Your task to perform on an android device: open the mobile data screen to see how much data has been used Image 0: 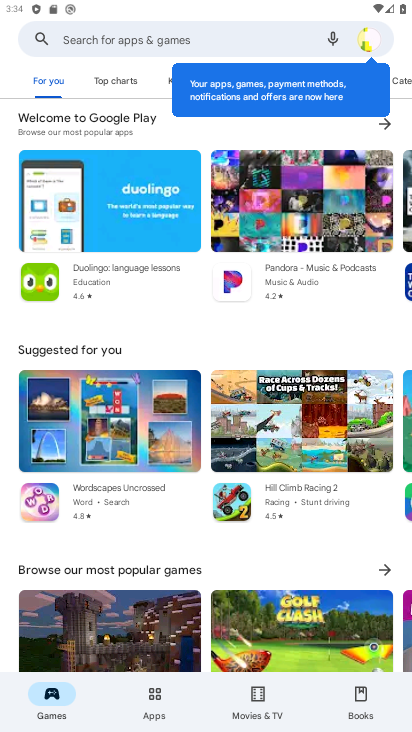
Step 0: press back button
Your task to perform on an android device: open the mobile data screen to see how much data has been used Image 1: 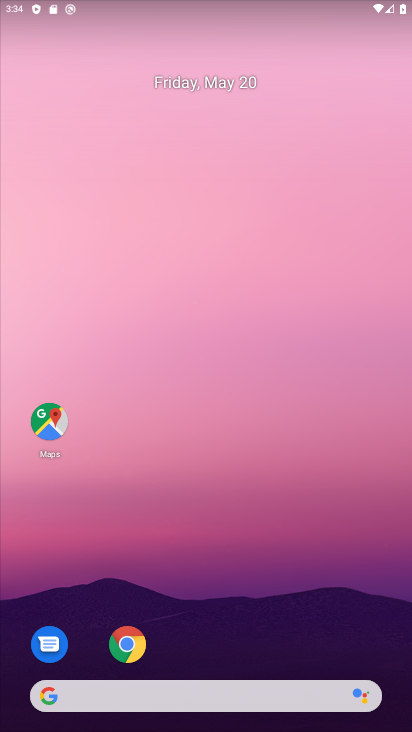
Step 1: drag from (253, 604) to (338, 63)
Your task to perform on an android device: open the mobile data screen to see how much data has been used Image 2: 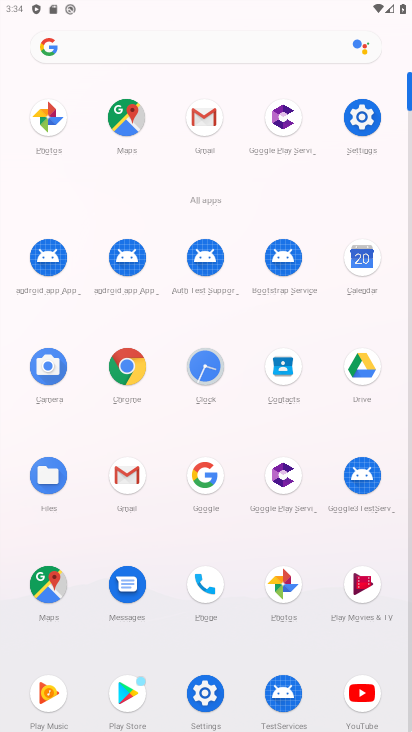
Step 2: click (360, 109)
Your task to perform on an android device: open the mobile data screen to see how much data has been used Image 3: 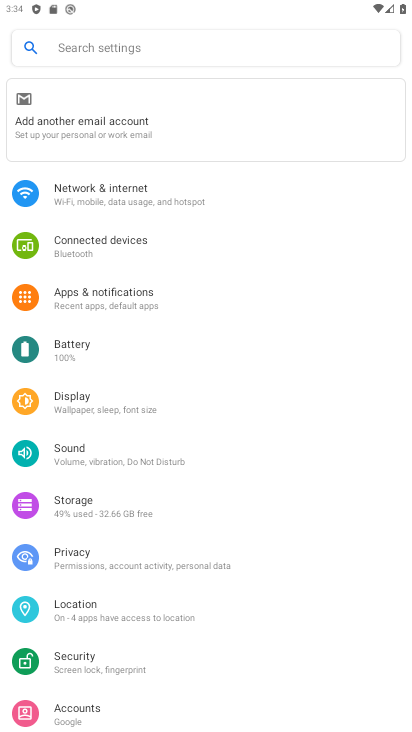
Step 3: click (222, 196)
Your task to perform on an android device: open the mobile data screen to see how much data has been used Image 4: 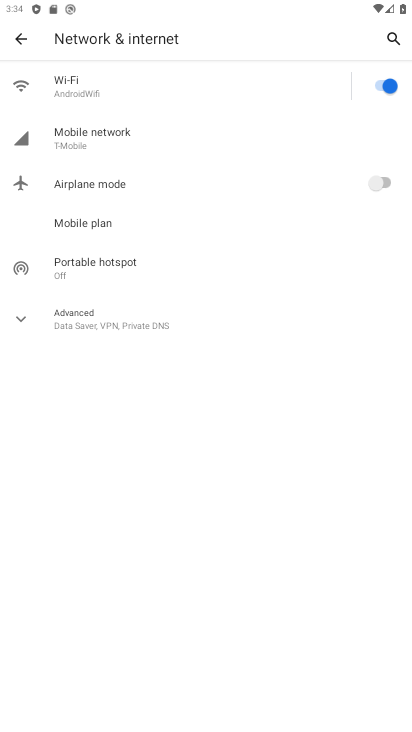
Step 4: click (121, 141)
Your task to perform on an android device: open the mobile data screen to see how much data has been used Image 5: 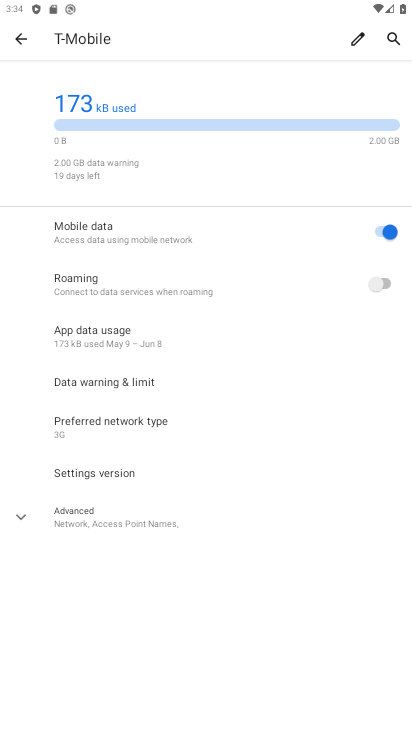
Step 5: click (114, 329)
Your task to perform on an android device: open the mobile data screen to see how much data has been used Image 6: 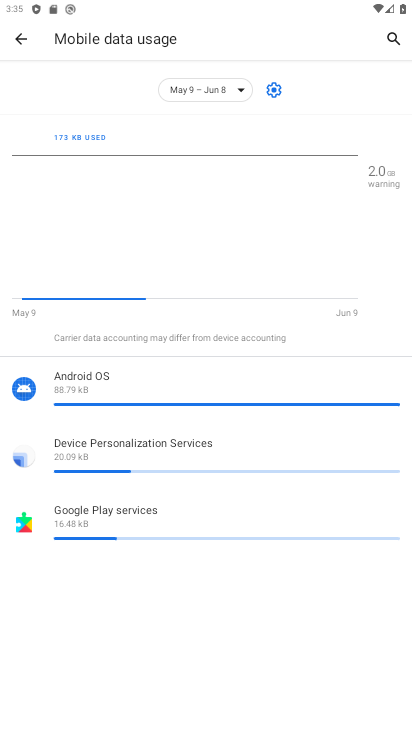
Step 6: task complete